Your task to perform on an android device: Go to Yahoo.com Image 0: 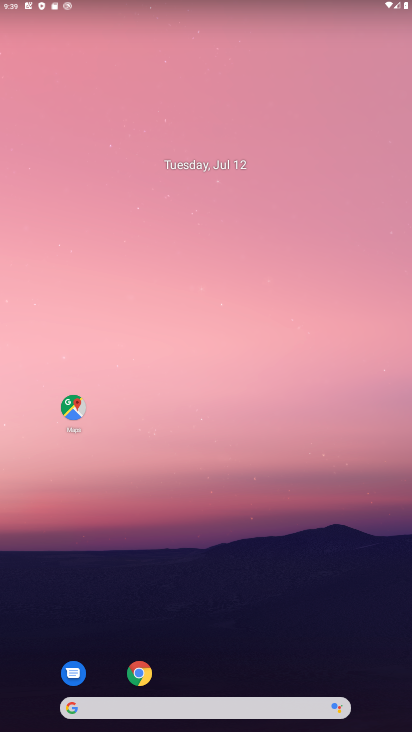
Step 0: click (138, 683)
Your task to perform on an android device: Go to Yahoo.com Image 1: 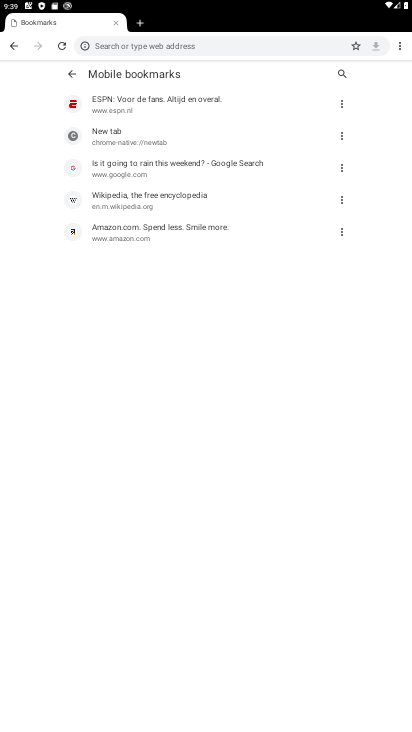
Step 1: click (12, 49)
Your task to perform on an android device: Go to Yahoo.com Image 2: 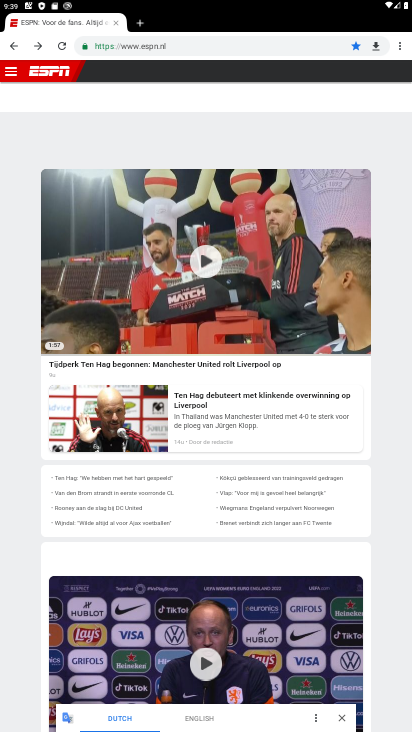
Step 2: click (12, 49)
Your task to perform on an android device: Go to Yahoo.com Image 3: 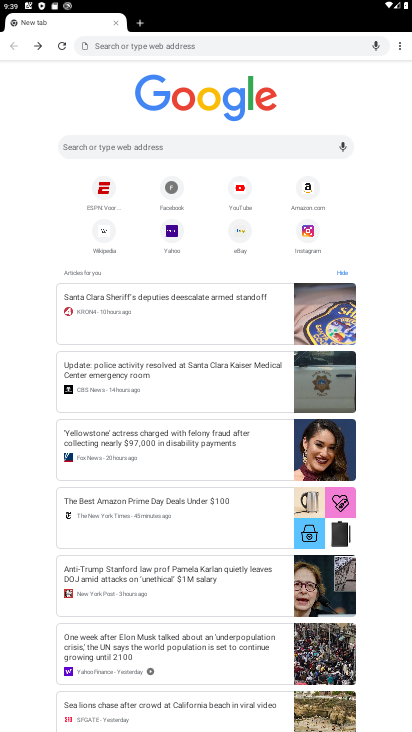
Step 3: click (172, 232)
Your task to perform on an android device: Go to Yahoo.com Image 4: 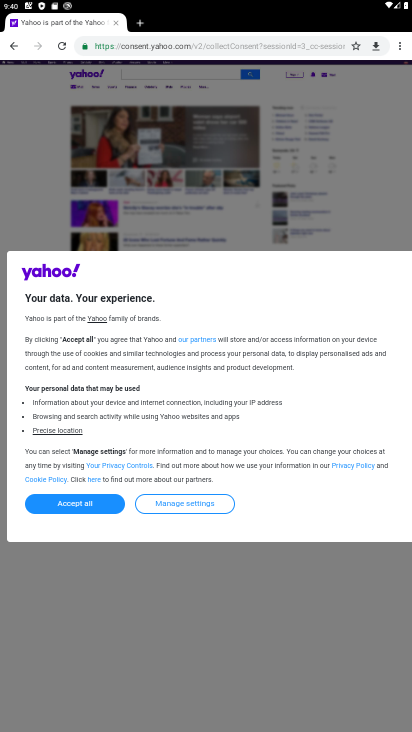
Step 4: task complete